Your task to perform on an android device: Open Chrome and go to settings Image 0: 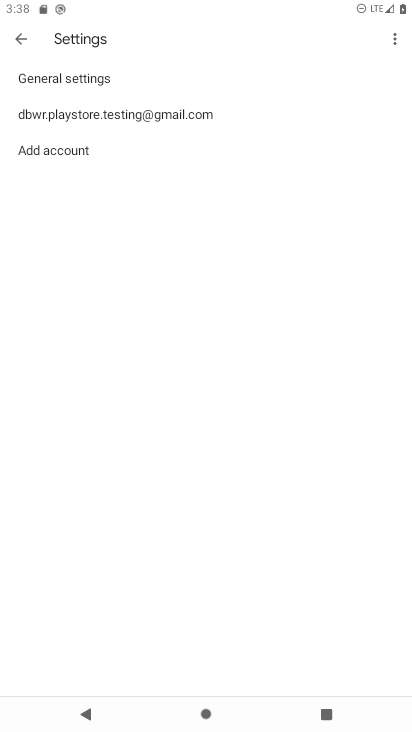
Step 0: press home button
Your task to perform on an android device: Open Chrome and go to settings Image 1: 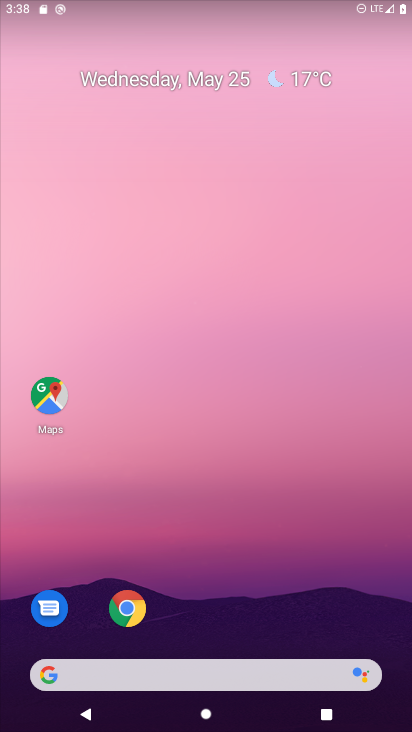
Step 1: click (124, 609)
Your task to perform on an android device: Open Chrome and go to settings Image 2: 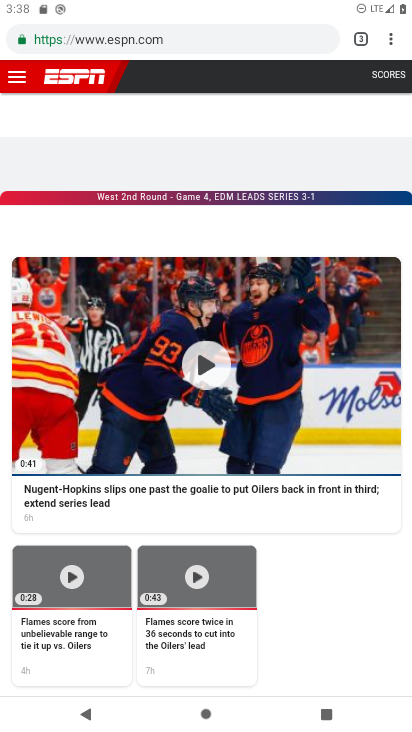
Step 2: click (392, 40)
Your task to perform on an android device: Open Chrome and go to settings Image 3: 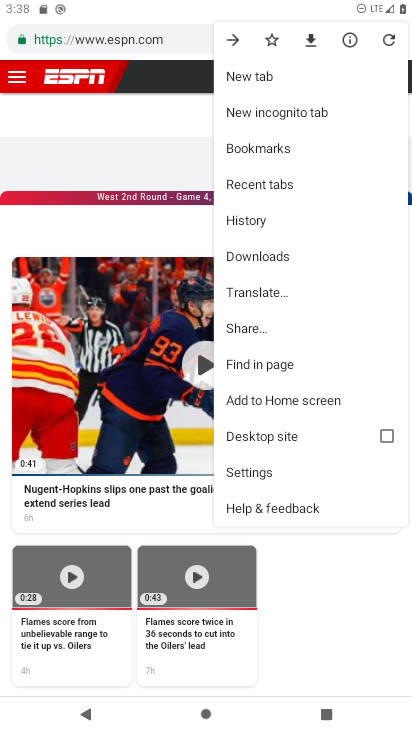
Step 3: click (262, 469)
Your task to perform on an android device: Open Chrome and go to settings Image 4: 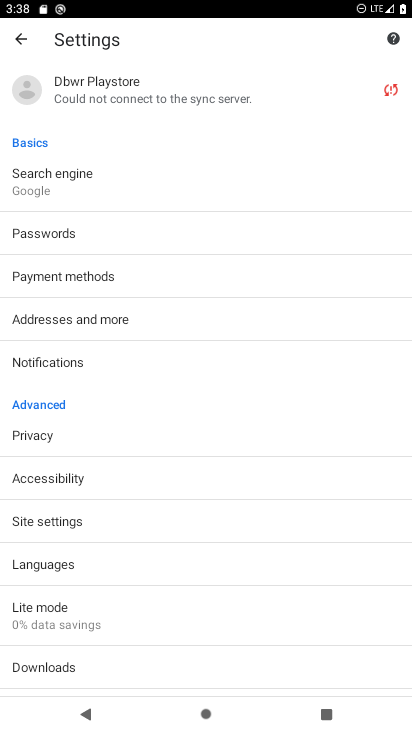
Step 4: task complete